Your task to perform on an android device: choose inbox layout in the gmail app Image 0: 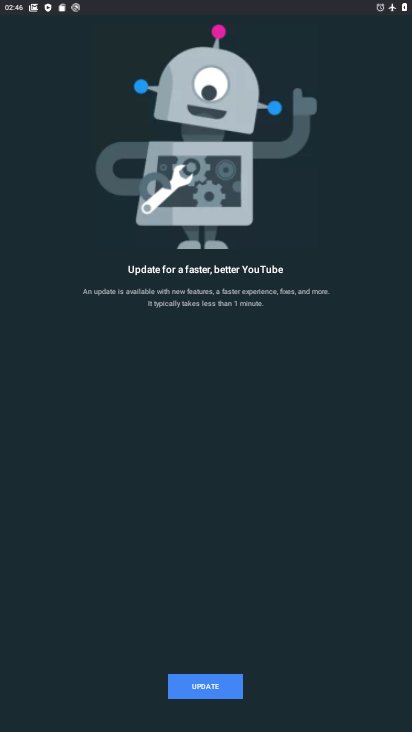
Step 0: press home button
Your task to perform on an android device: choose inbox layout in the gmail app Image 1: 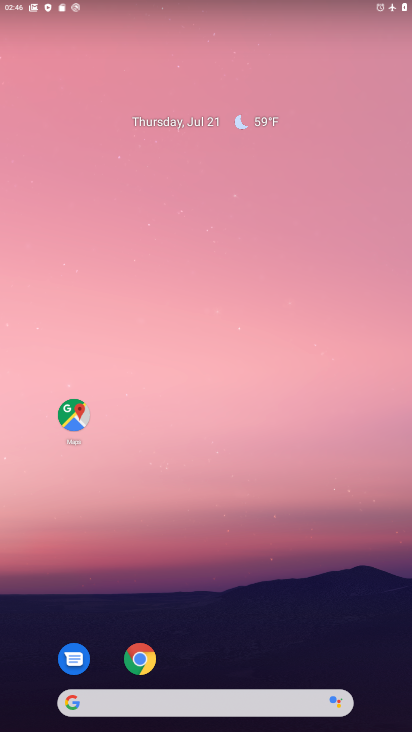
Step 1: drag from (301, 613) to (238, 90)
Your task to perform on an android device: choose inbox layout in the gmail app Image 2: 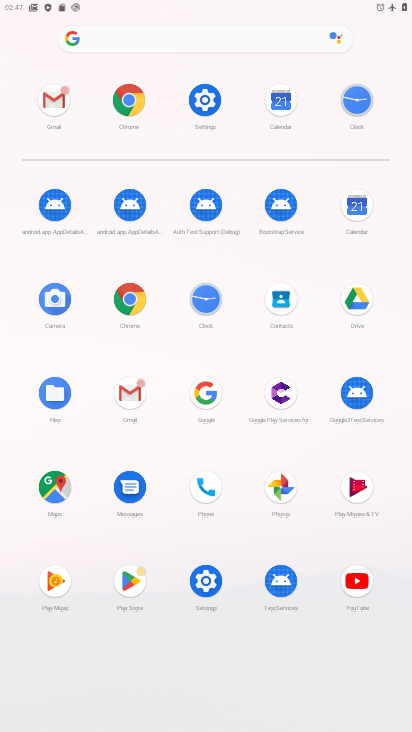
Step 2: click (55, 103)
Your task to perform on an android device: choose inbox layout in the gmail app Image 3: 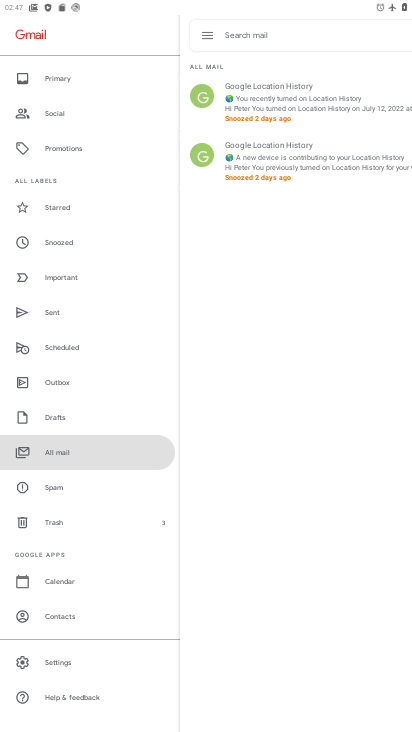
Step 3: click (64, 660)
Your task to perform on an android device: choose inbox layout in the gmail app Image 4: 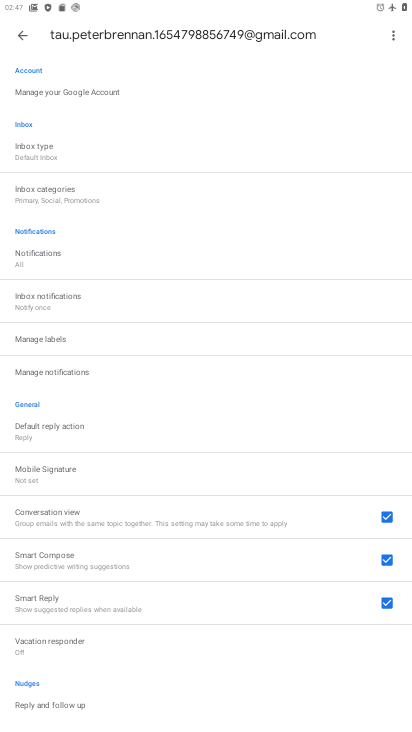
Step 4: click (43, 140)
Your task to perform on an android device: choose inbox layout in the gmail app Image 5: 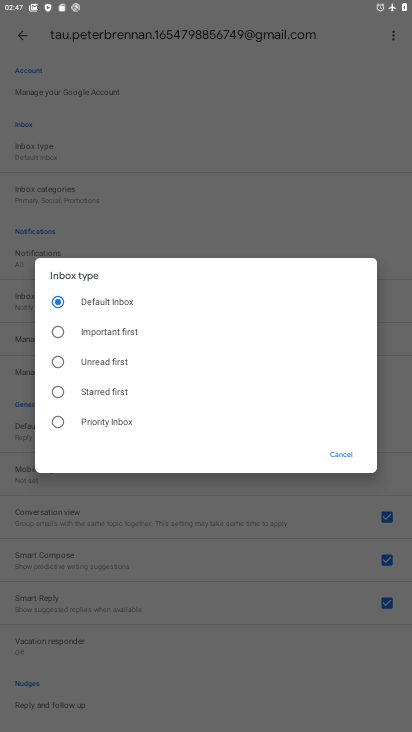
Step 5: task complete